Your task to perform on an android device: Go to privacy settings Image 0: 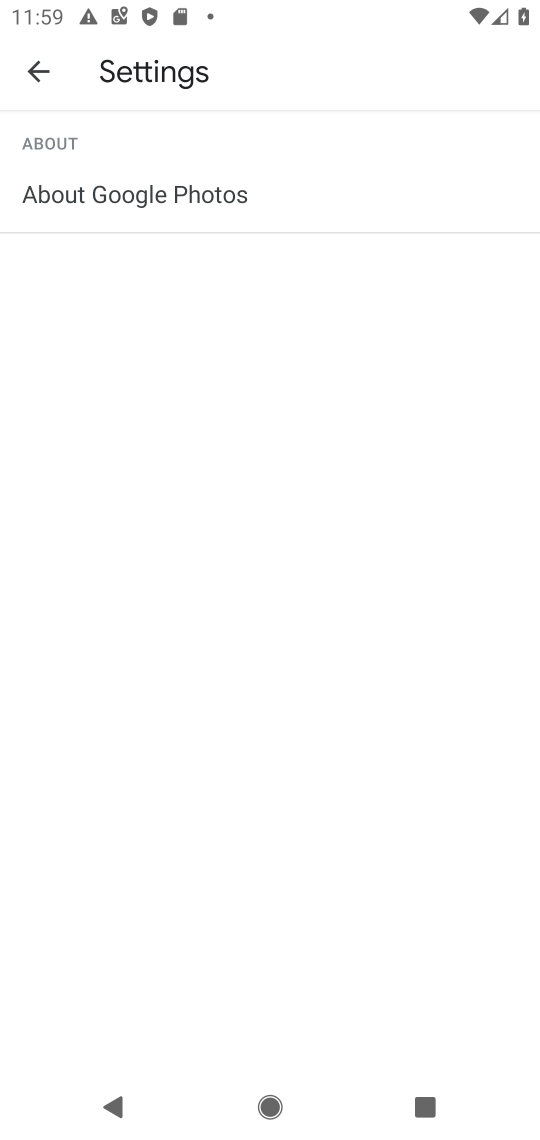
Step 0: click (39, 74)
Your task to perform on an android device: Go to privacy settings Image 1: 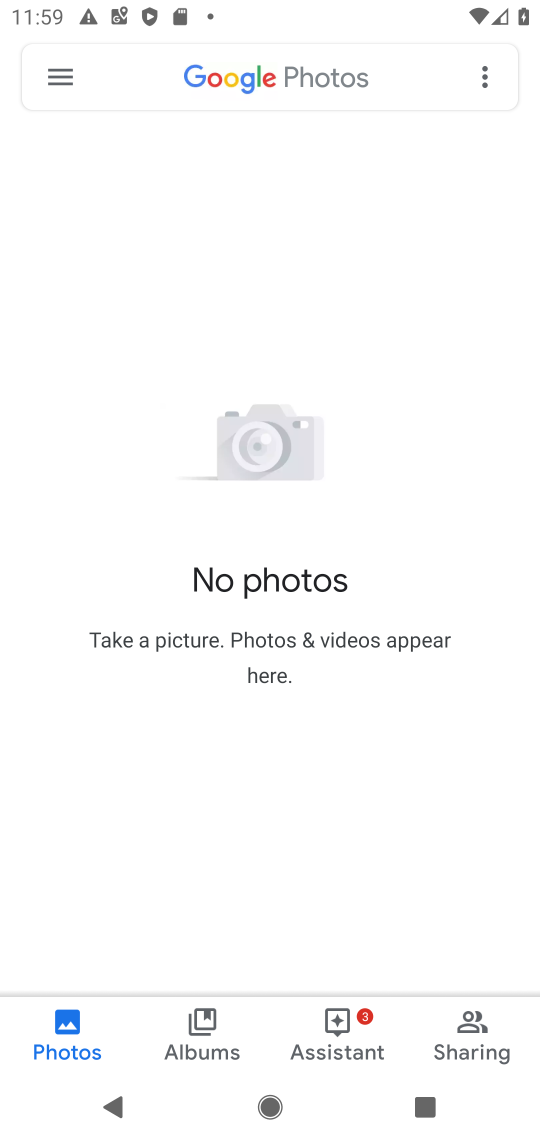
Step 1: press home button
Your task to perform on an android device: Go to privacy settings Image 2: 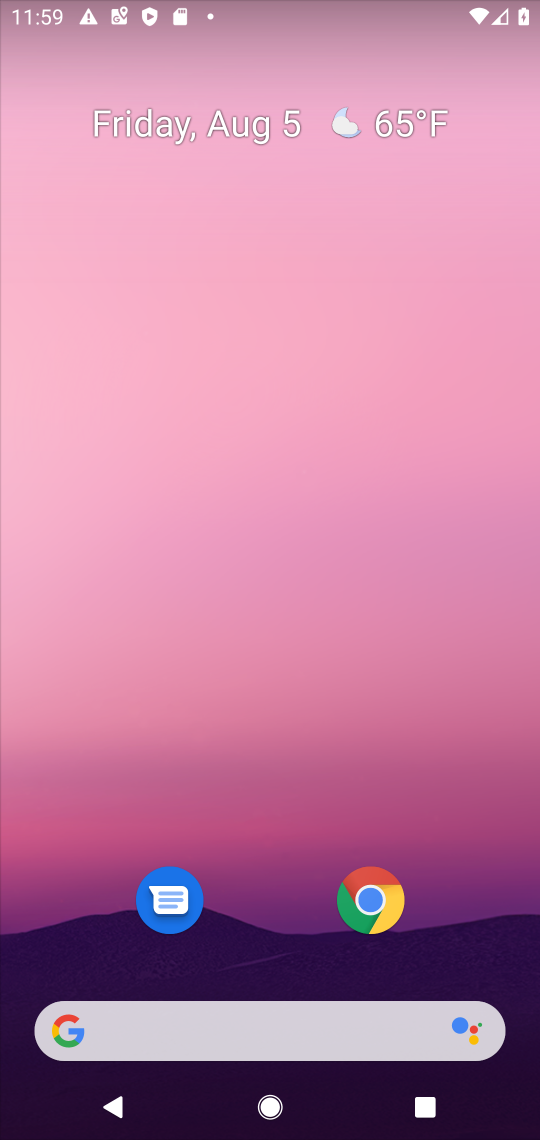
Step 2: drag from (273, 872) to (281, 102)
Your task to perform on an android device: Go to privacy settings Image 3: 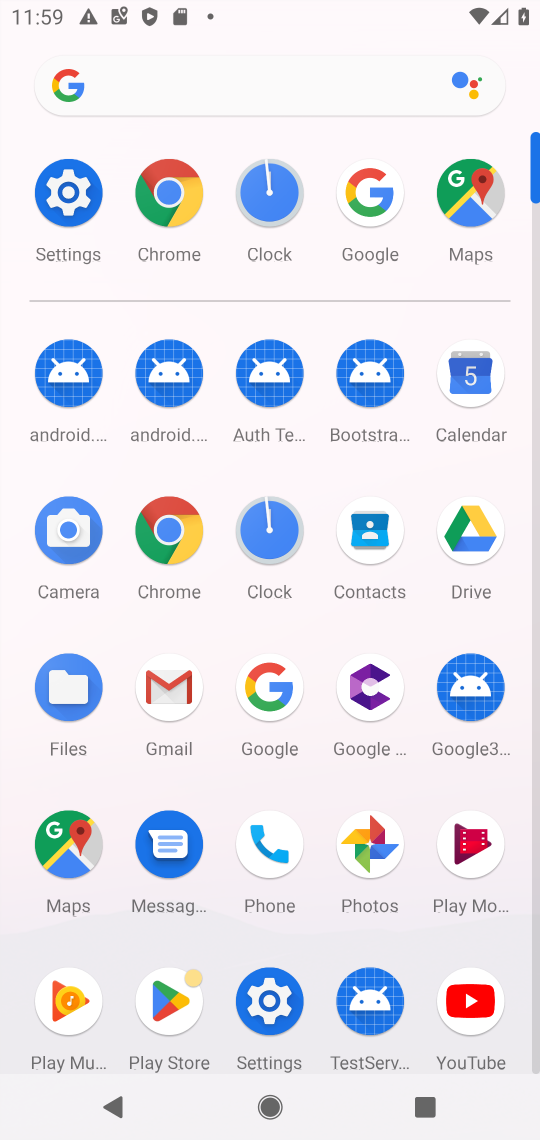
Step 3: click (67, 184)
Your task to perform on an android device: Go to privacy settings Image 4: 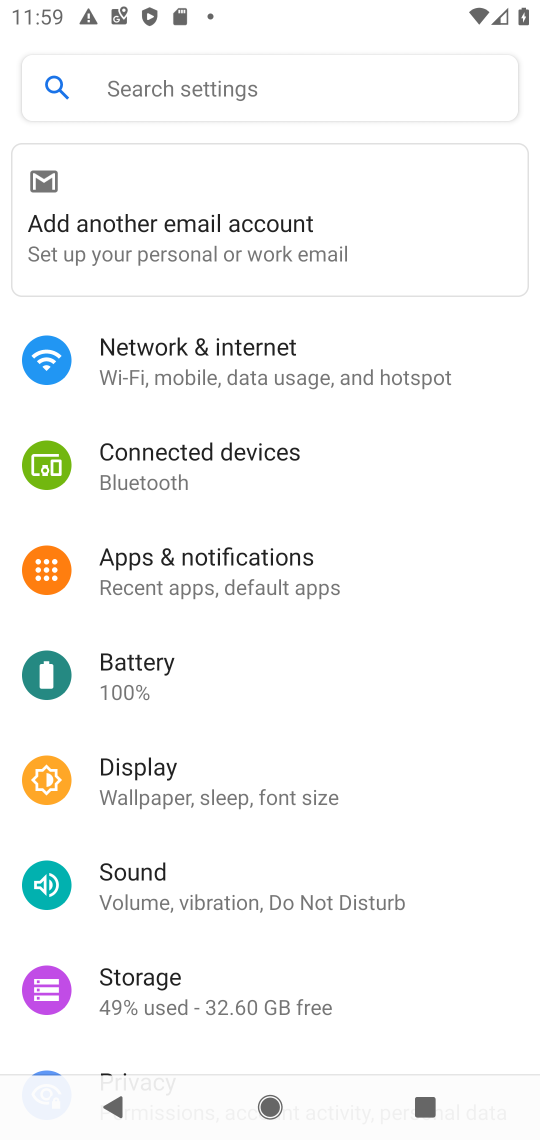
Step 4: drag from (194, 972) to (224, 342)
Your task to perform on an android device: Go to privacy settings Image 5: 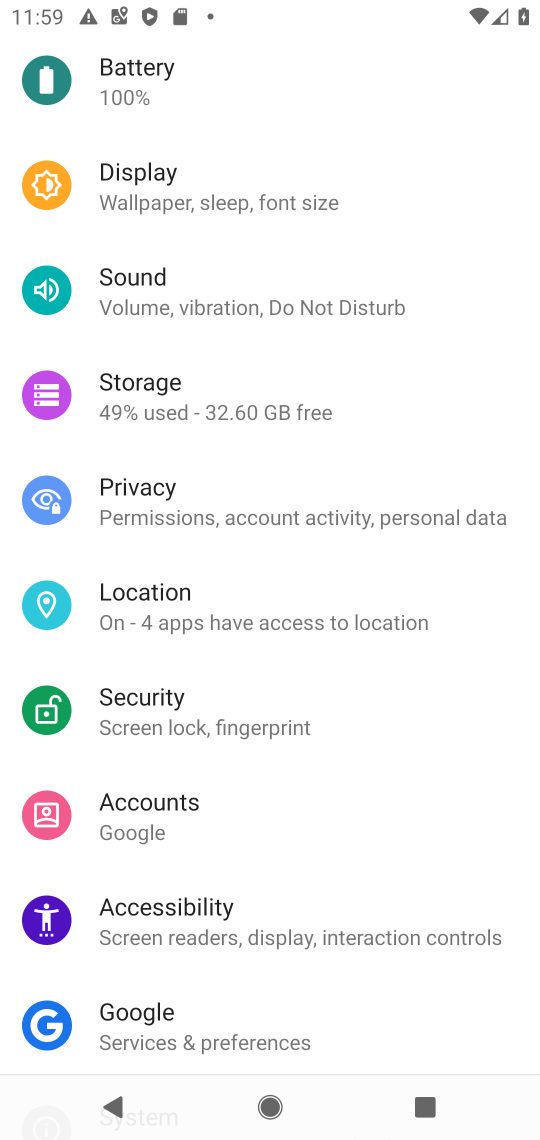
Step 5: click (134, 497)
Your task to perform on an android device: Go to privacy settings Image 6: 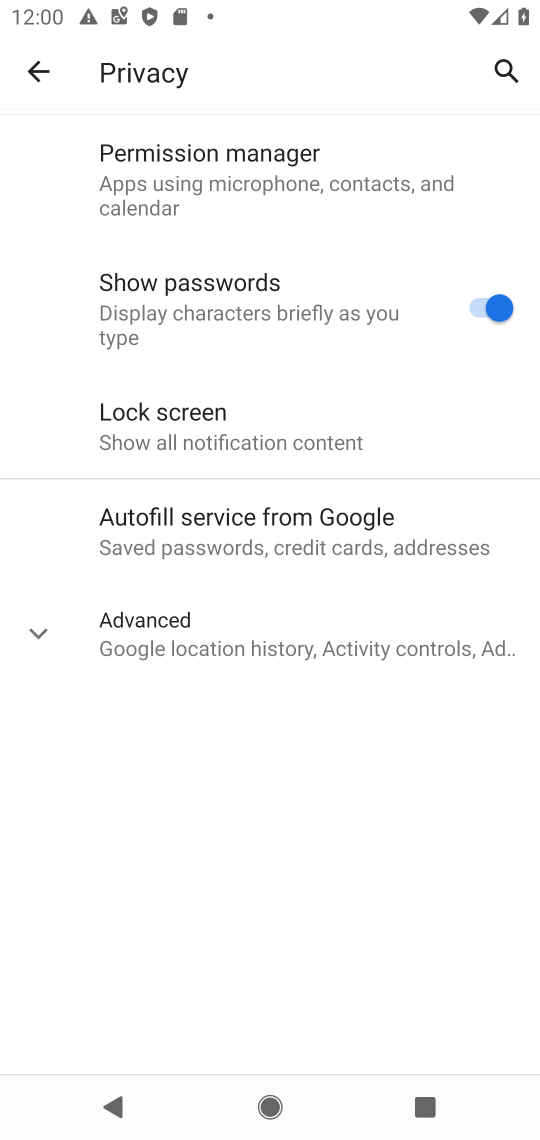
Step 6: task complete